Your task to perform on an android device: show emergency info Image 0: 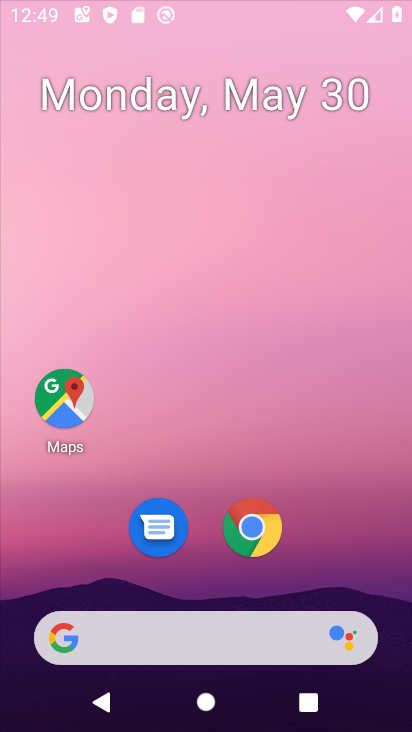
Step 0: drag from (247, 495) to (236, 232)
Your task to perform on an android device: show emergency info Image 1: 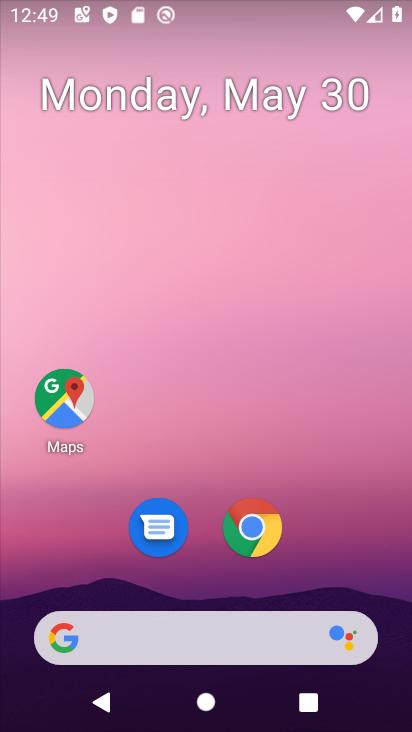
Step 1: drag from (215, 592) to (199, 279)
Your task to perform on an android device: show emergency info Image 2: 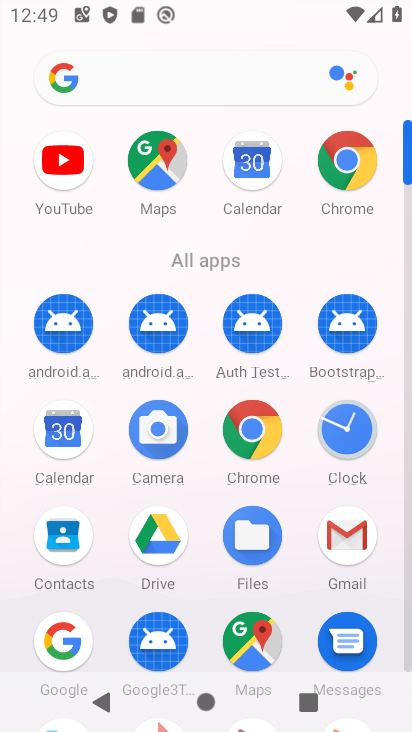
Step 2: drag from (219, 466) to (220, 173)
Your task to perform on an android device: show emergency info Image 3: 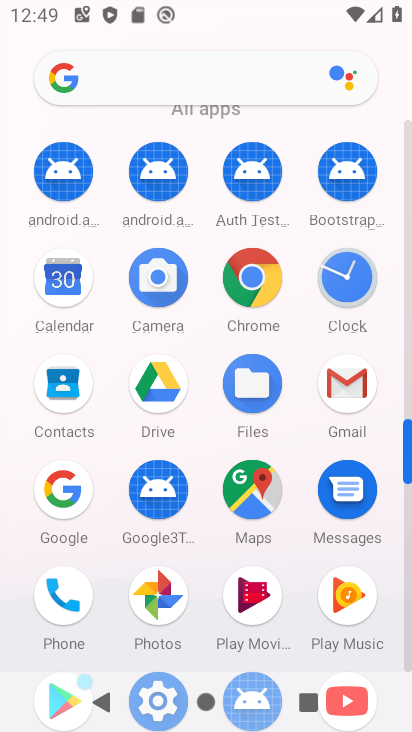
Step 3: drag from (204, 648) to (170, 170)
Your task to perform on an android device: show emergency info Image 4: 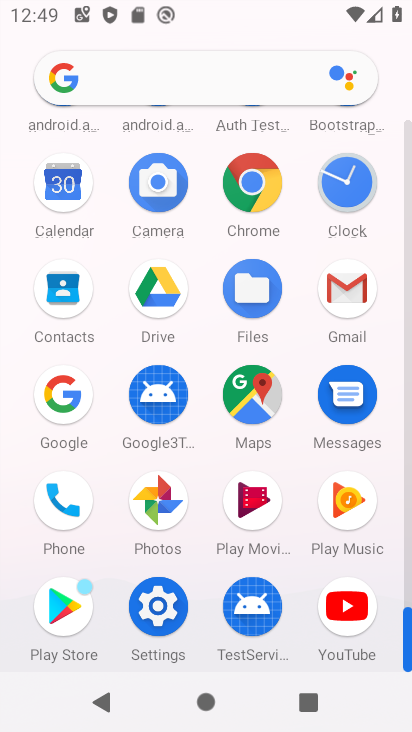
Step 4: click (164, 631)
Your task to perform on an android device: show emergency info Image 5: 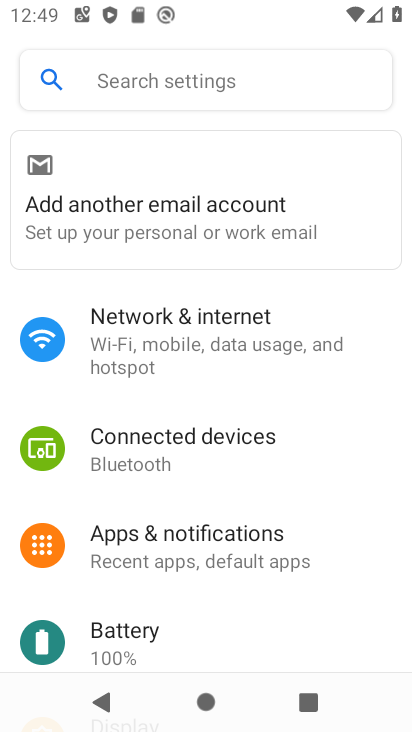
Step 5: drag from (154, 611) to (160, 38)
Your task to perform on an android device: show emergency info Image 6: 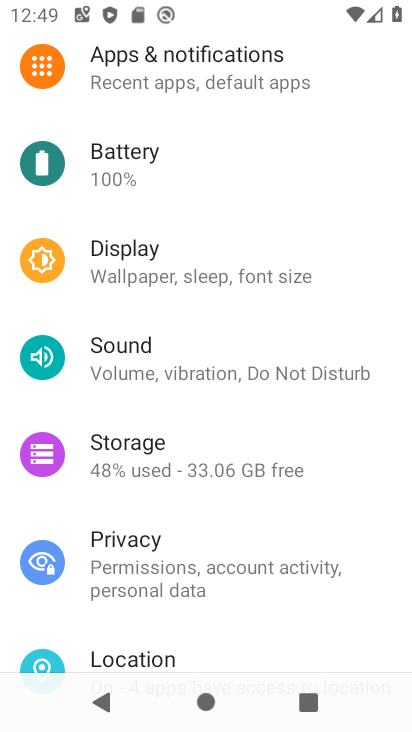
Step 6: drag from (227, 582) to (263, 176)
Your task to perform on an android device: show emergency info Image 7: 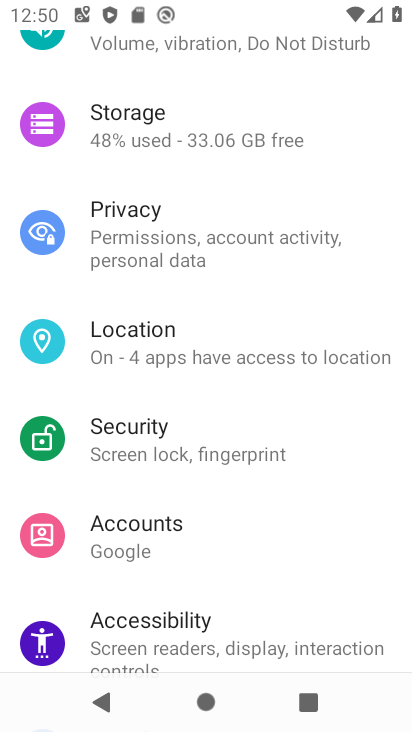
Step 7: drag from (234, 632) to (261, 270)
Your task to perform on an android device: show emergency info Image 8: 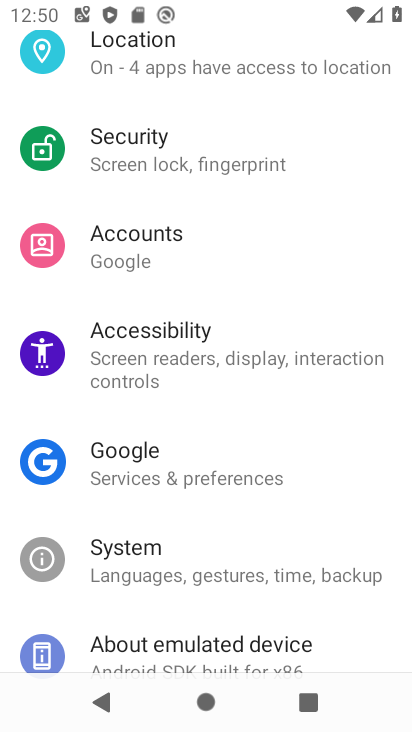
Step 8: click (189, 649)
Your task to perform on an android device: show emergency info Image 9: 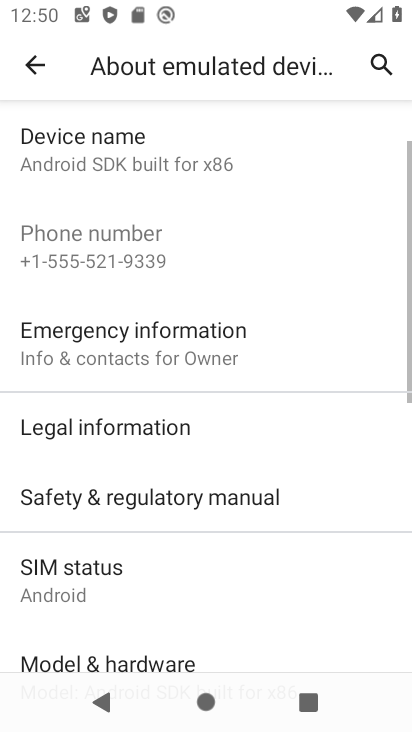
Step 9: click (185, 345)
Your task to perform on an android device: show emergency info Image 10: 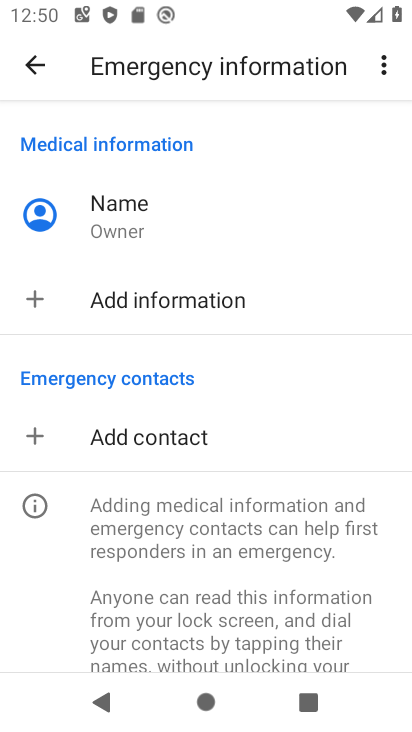
Step 10: task complete